Your task to perform on an android device: Open the phone app and click the voicemail tab. Image 0: 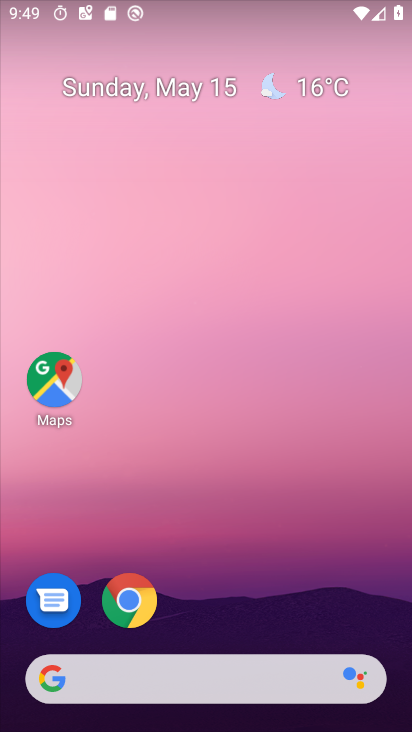
Step 0: drag from (249, 659) to (141, 20)
Your task to perform on an android device: Open the phone app and click the voicemail tab. Image 1: 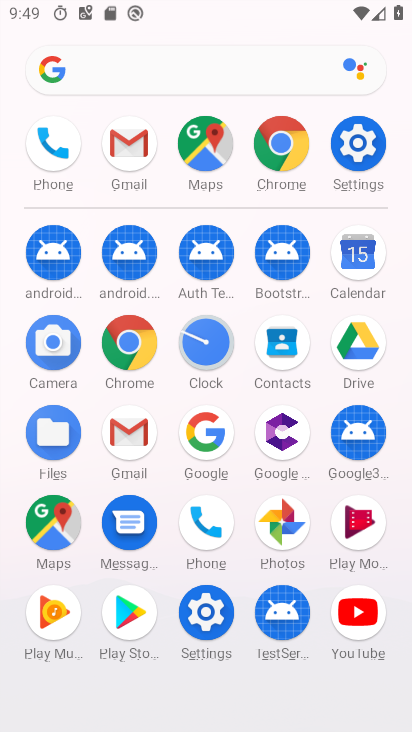
Step 1: click (225, 528)
Your task to perform on an android device: Open the phone app and click the voicemail tab. Image 2: 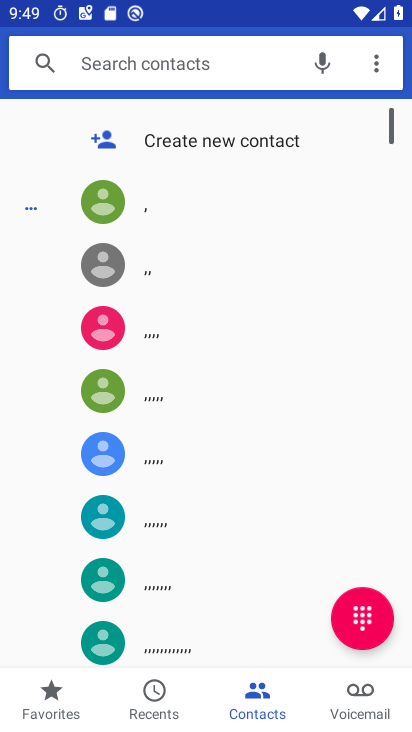
Step 2: click (363, 697)
Your task to perform on an android device: Open the phone app and click the voicemail tab. Image 3: 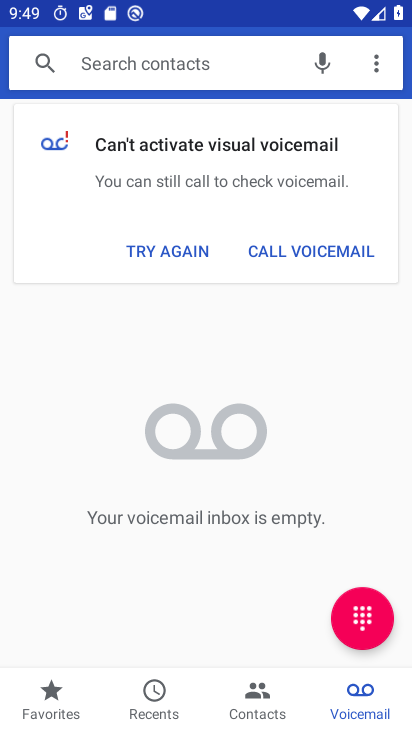
Step 3: task complete